Your task to perform on an android device: check battery use Image 0: 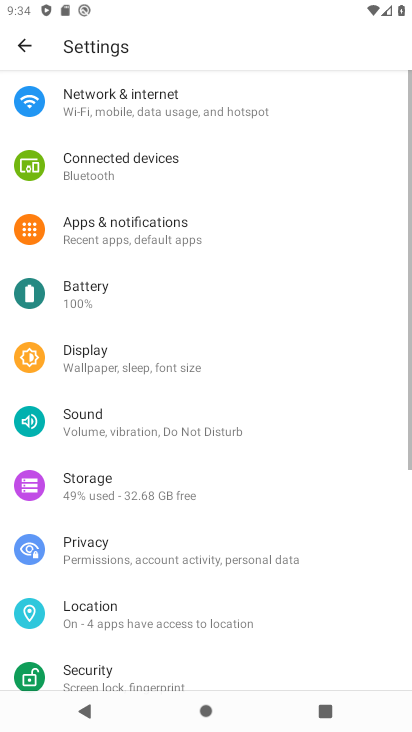
Step 0: click (128, 286)
Your task to perform on an android device: check battery use Image 1: 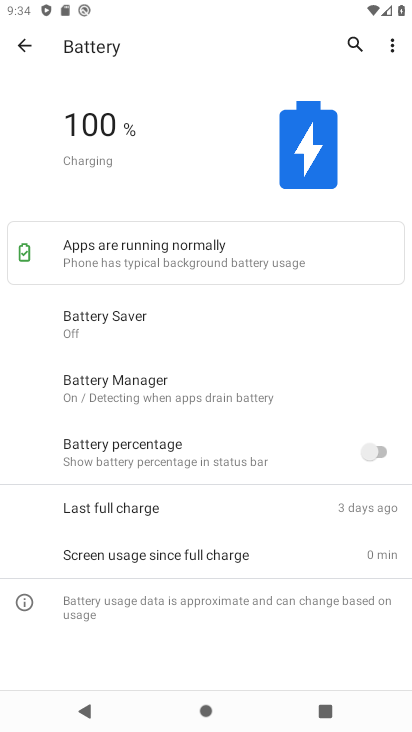
Step 1: click (392, 34)
Your task to perform on an android device: check battery use Image 2: 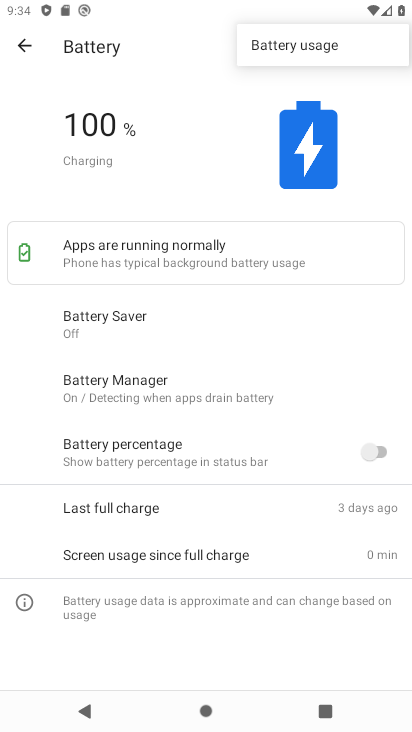
Step 2: click (333, 54)
Your task to perform on an android device: check battery use Image 3: 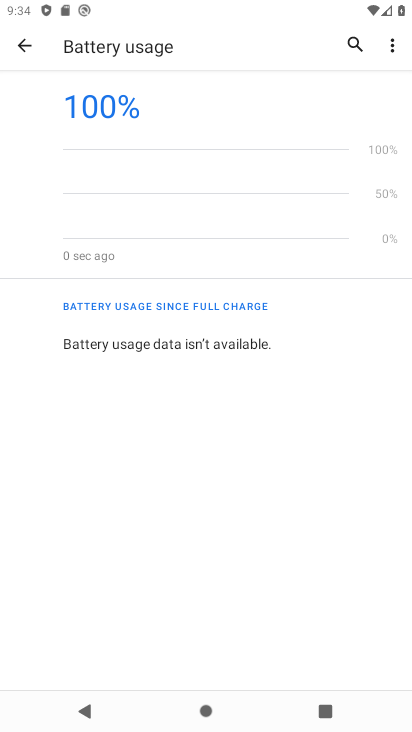
Step 3: task complete